Your task to perform on an android device: show emergency info Image 0: 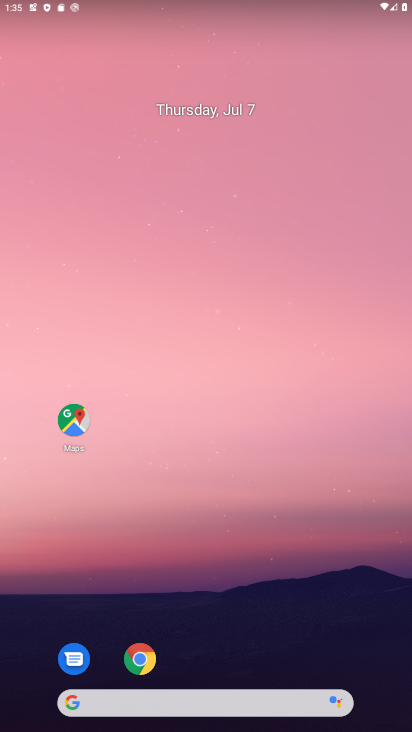
Step 0: drag from (235, 655) to (242, 68)
Your task to perform on an android device: show emergency info Image 1: 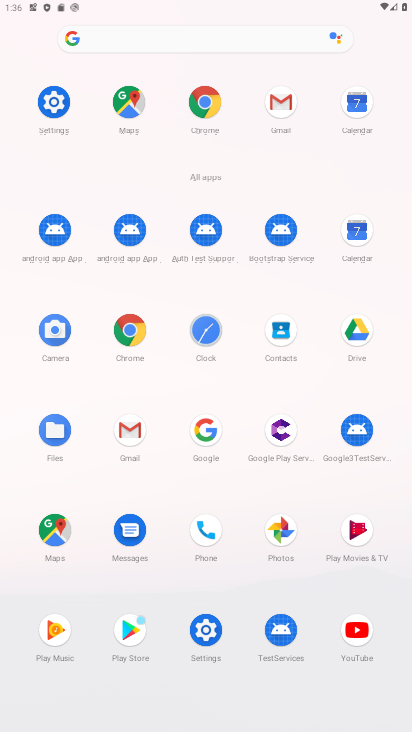
Step 1: click (53, 96)
Your task to perform on an android device: show emergency info Image 2: 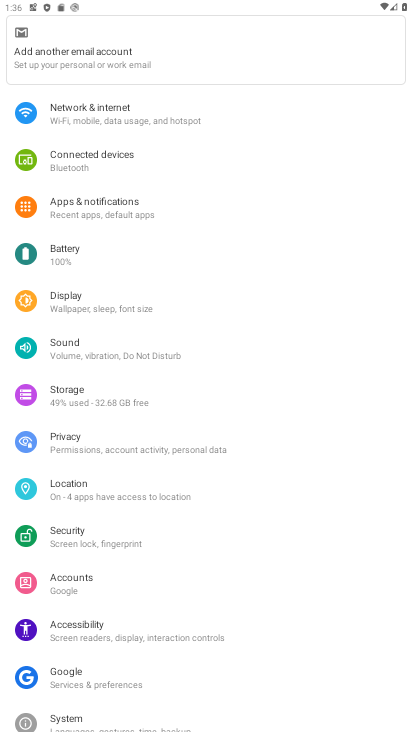
Step 2: drag from (129, 693) to (154, 262)
Your task to perform on an android device: show emergency info Image 3: 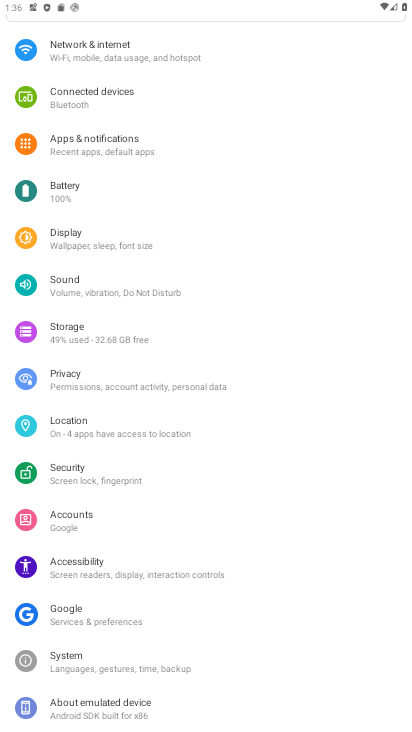
Step 3: click (126, 699)
Your task to perform on an android device: show emergency info Image 4: 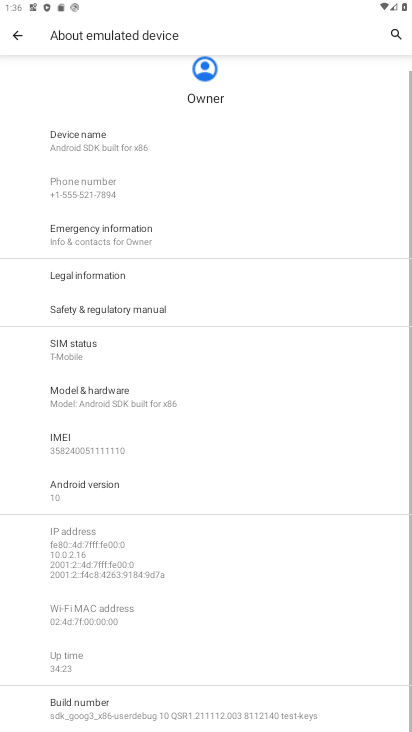
Step 4: click (125, 239)
Your task to perform on an android device: show emergency info Image 5: 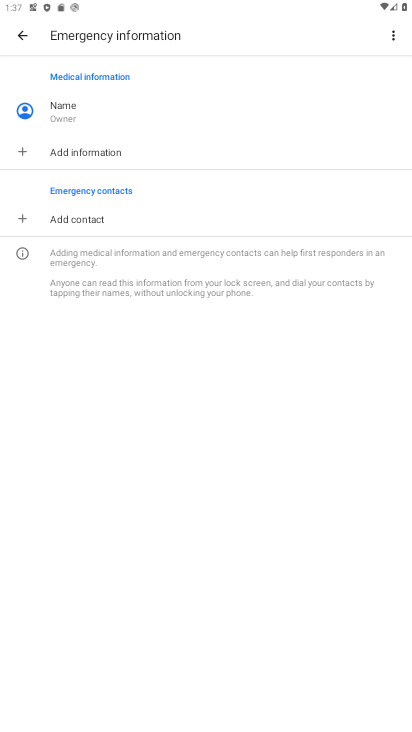
Step 5: task complete